Your task to perform on an android device: toggle sleep mode Image 0: 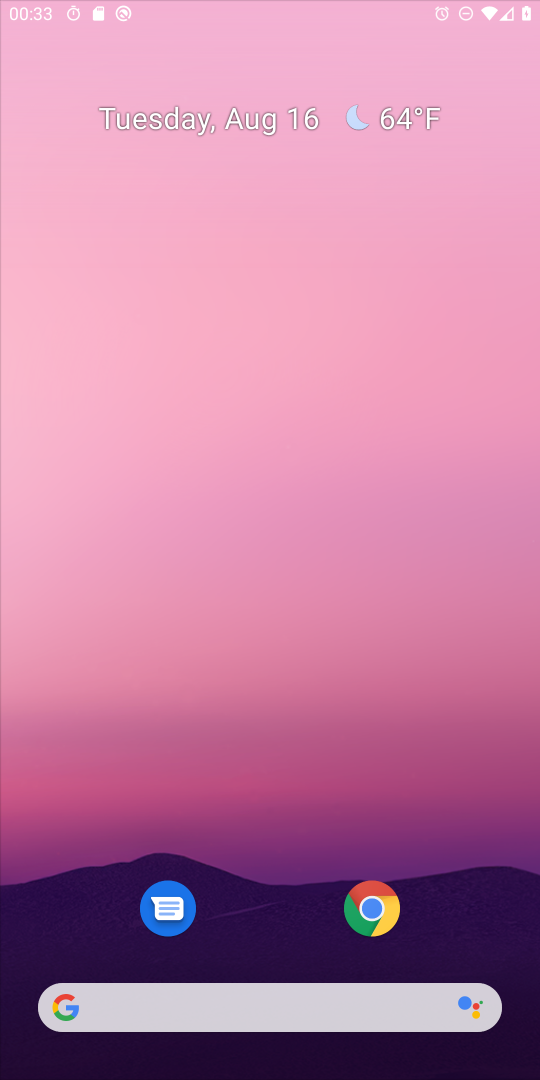
Step 0: click (405, 902)
Your task to perform on an android device: toggle sleep mode Image 1: 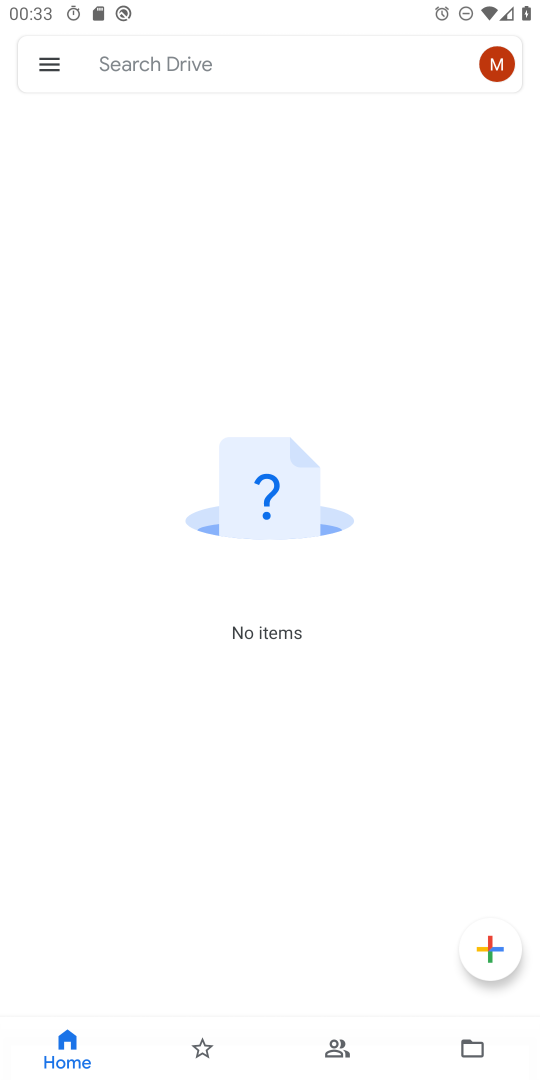
Step 1: press home button
Your task to perform on an android device: toggle sleep mode Image 2: 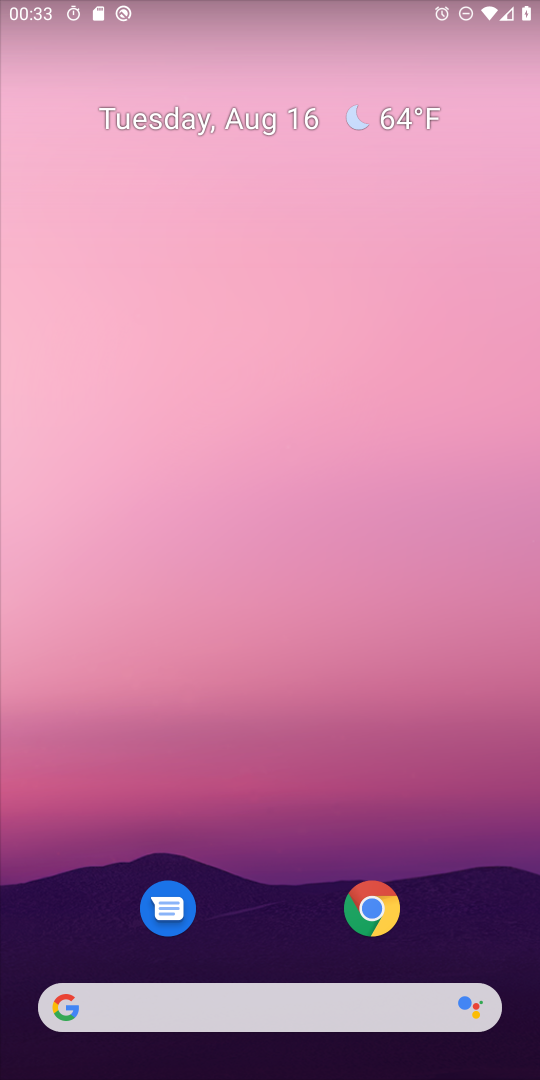
Step 2: drag from (264, 940) to (463, 50)
Your task to perform on an android device: toggle sleep mode Image 3: 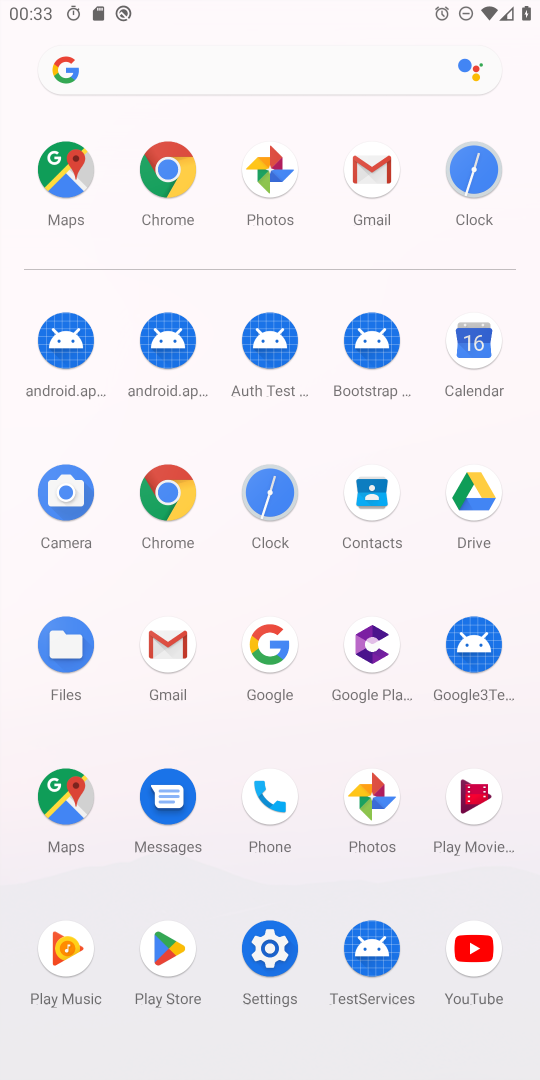
Step 3: click (251, 1023)
Your task to perform on an android device: toggle sleep mode Image 4: 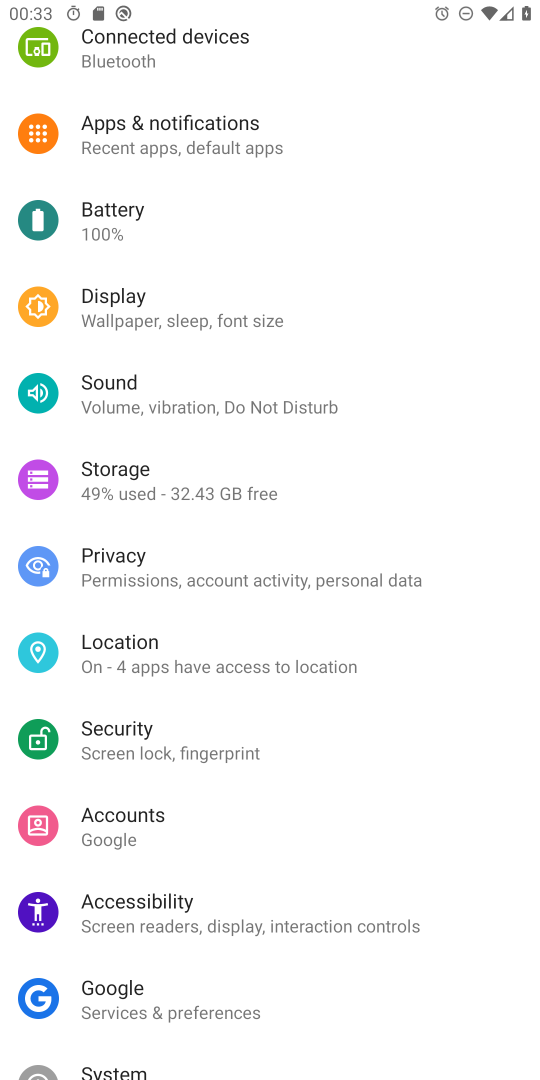
Step 4: task complete